Your task to perform on an android device: check storage Image 0: 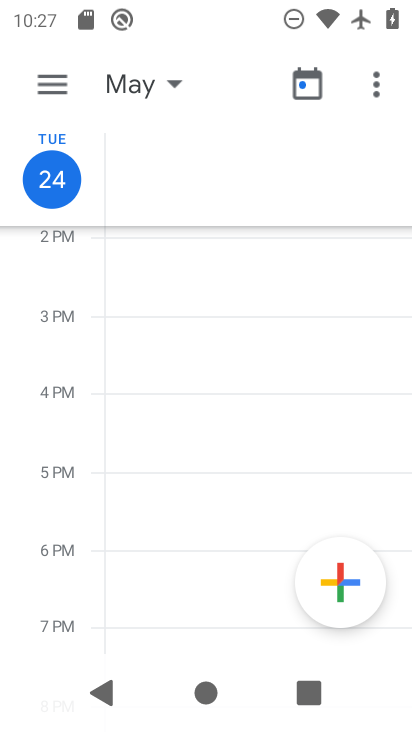
Step 0: press home button
Your task to perform on an android device: check storage Image 1: 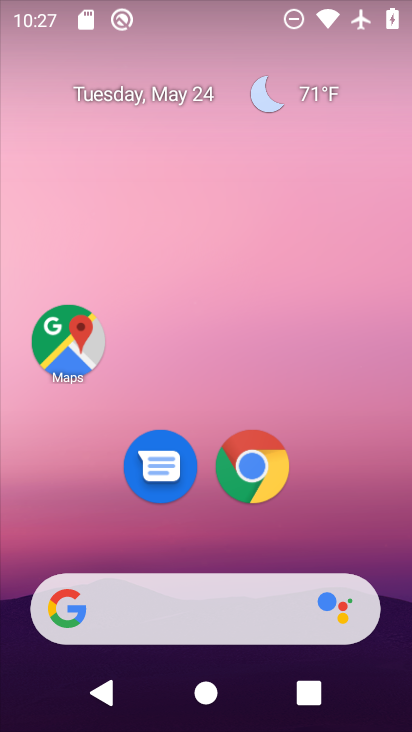
Step 1: drag from (195, 537) to (233, 126)
Your task to perform on an android device: check storage Image 2: 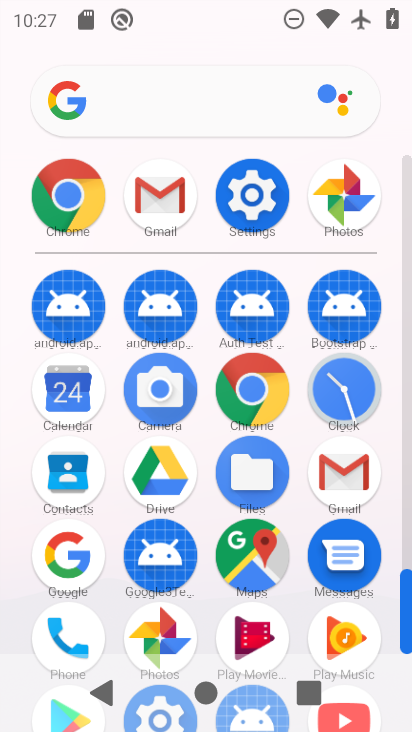
Step 2: click (250, 194)
Your task to perform on an android device: check storage Image 3: 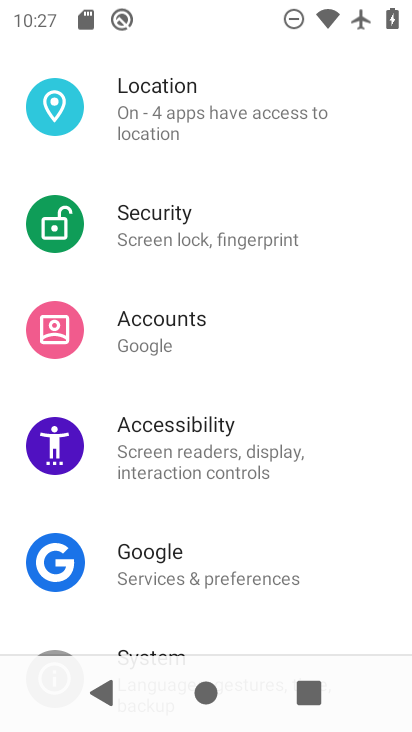
Step 3: drag from (149, 554) to (51, 85)
Your task to perform on an android device: check storage Image 4: 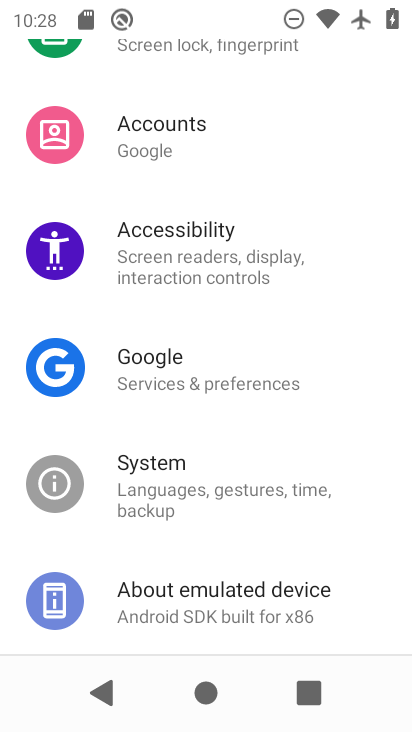
Step 4: drag from (208, 225) to (216, 548)
Your task to perform on an android device: check storage Image 5: 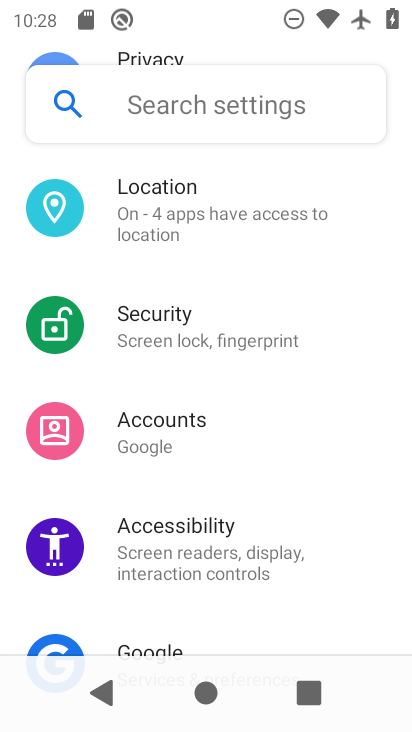
Step 5: drag from (191, 290) to (232, 687)
Your task to perform on an android device: check storage Image 6: 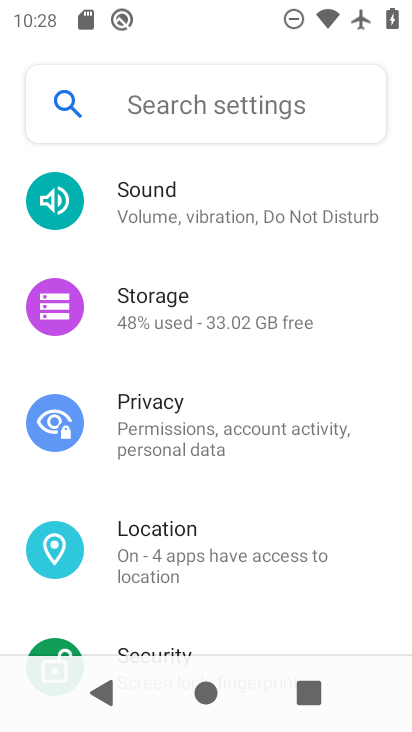
Step 6: click (176, 321)
Your task to perform on an android device: check storage Image 7: 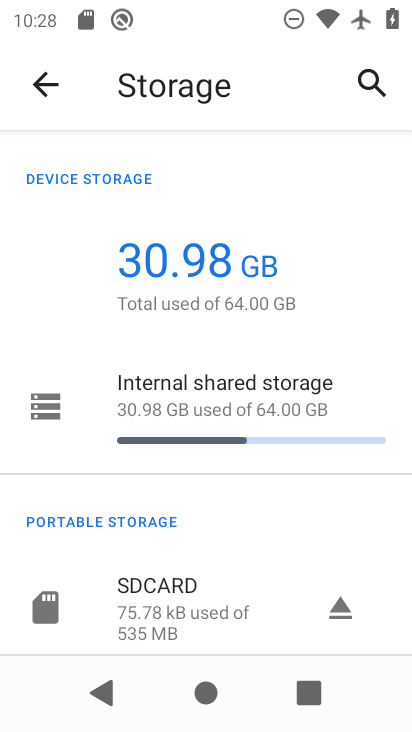
Step 7: click (242, 397)
Your task to perform on an android device: check storage Image 8: 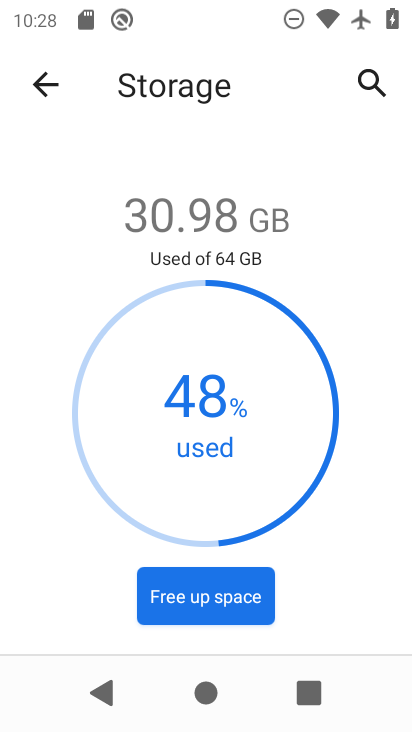
Step 8: task complete